Your task to perform on an android device: Search for sushi restaurants on Maps Image 0: 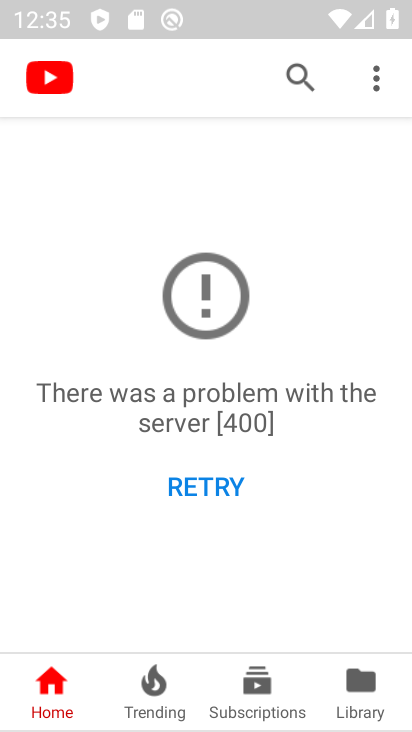
Step 0: press home button
Your task to perform on an android device: Search for sushi restaurants on Maps Image 1: 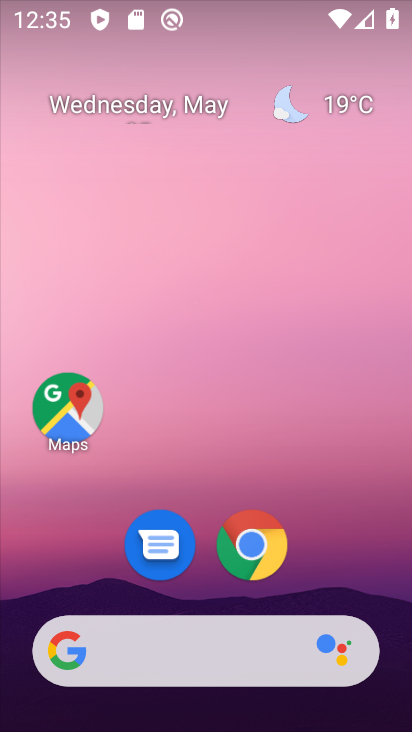
Step 1: click (60, 415)
Your task to perform on an android device: Search for sushi restaurants on Maps Image 2: 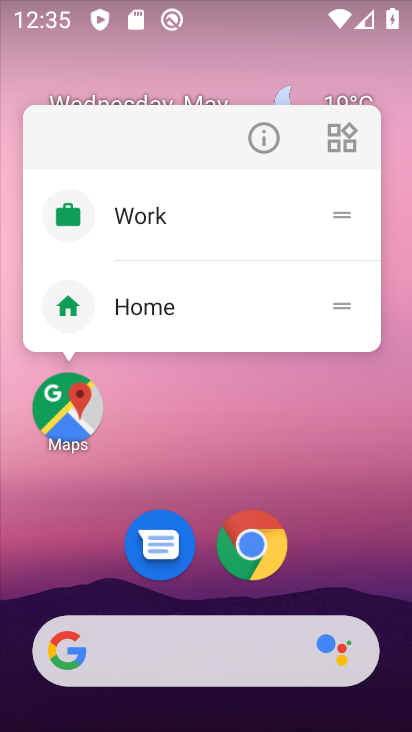
Step 2: click (59, 415)
Your task to perform on an android device: Search for sushi restaurants on Maps Image 3: 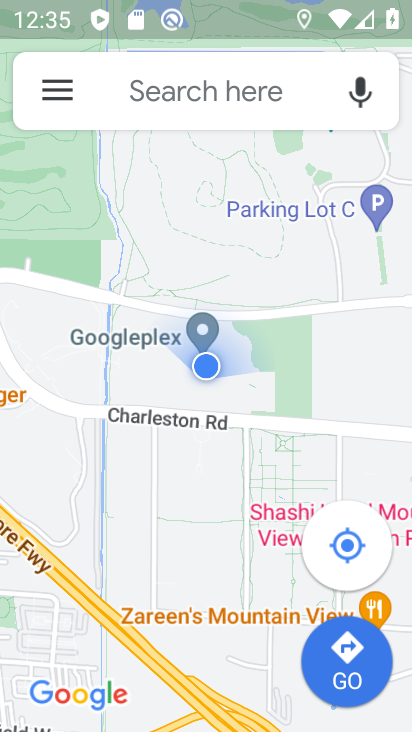
Step 3: click (158, 81)
Your task to perform on an android device: Search for sushi restaurants on Maps Image 4: 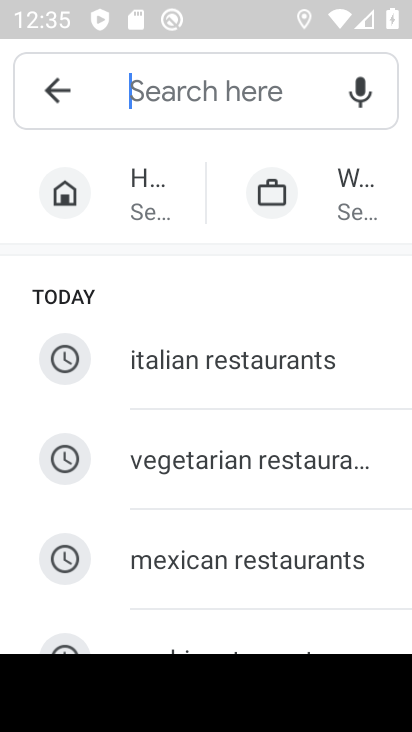
Step 4: type "sushi restaurant"
Your task to perform on an android device: Search for sushi restaurants on Maps Image 5: 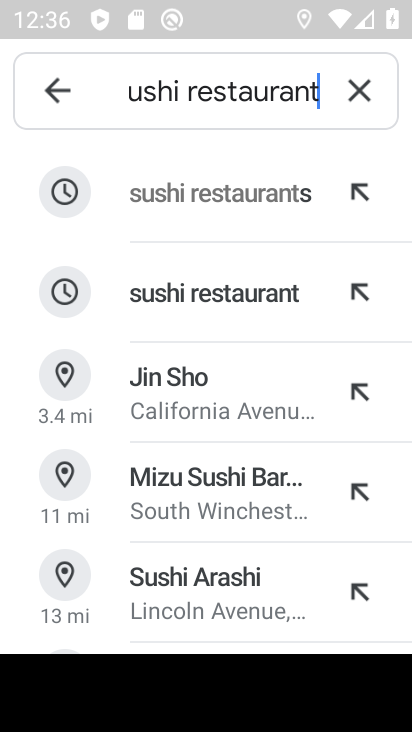
Step 5: click (78, 289)
Your task to perform on an android device: Search for sushi restaurants on Maps Image 6: 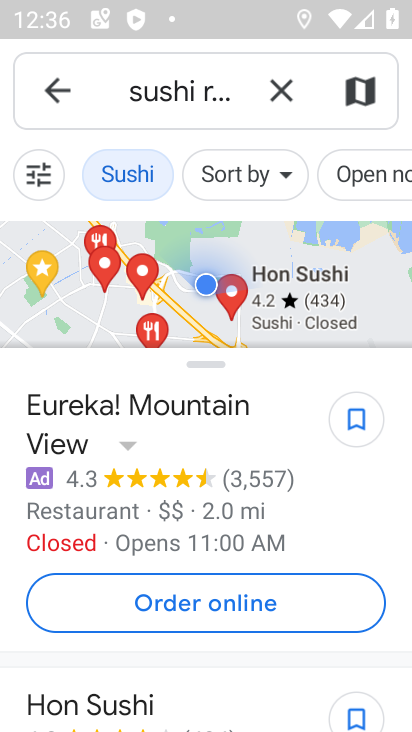
Step 6: task complete